Your task to perform on an android device: delete browsing data in the chrome app Image 0: 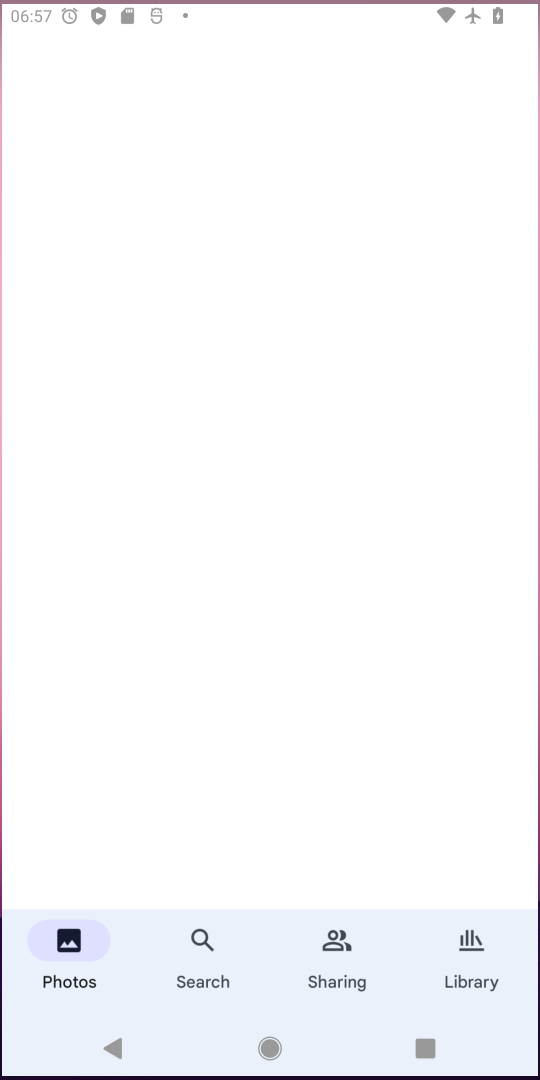
Step 0: press home button
Your task to perform on an android device: delete browsing data in the chrome app Image 1: 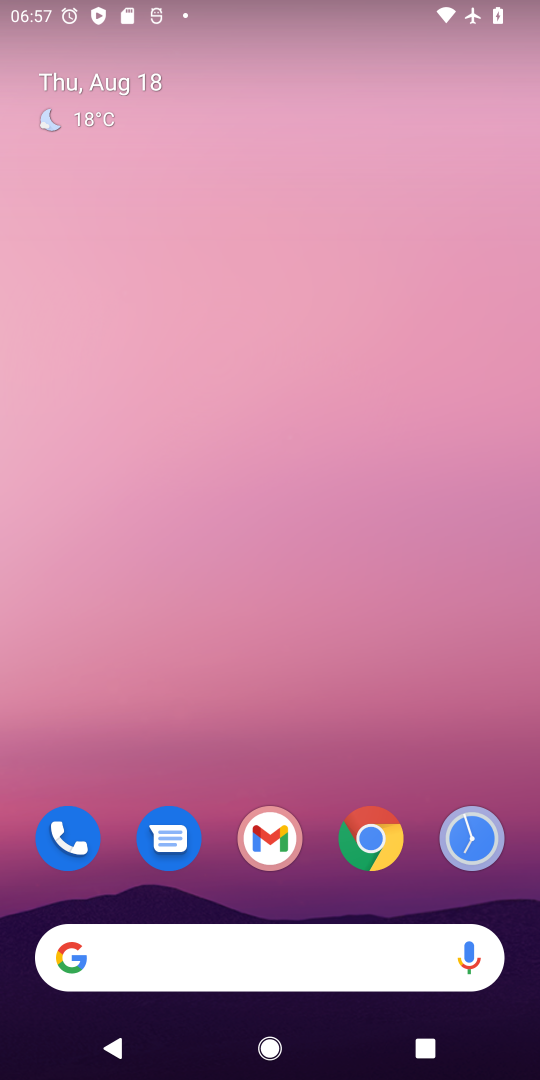
Step 1: click (371, 850)
Your task to perform on an android device: delete browsing data in the chrome app Image 2: 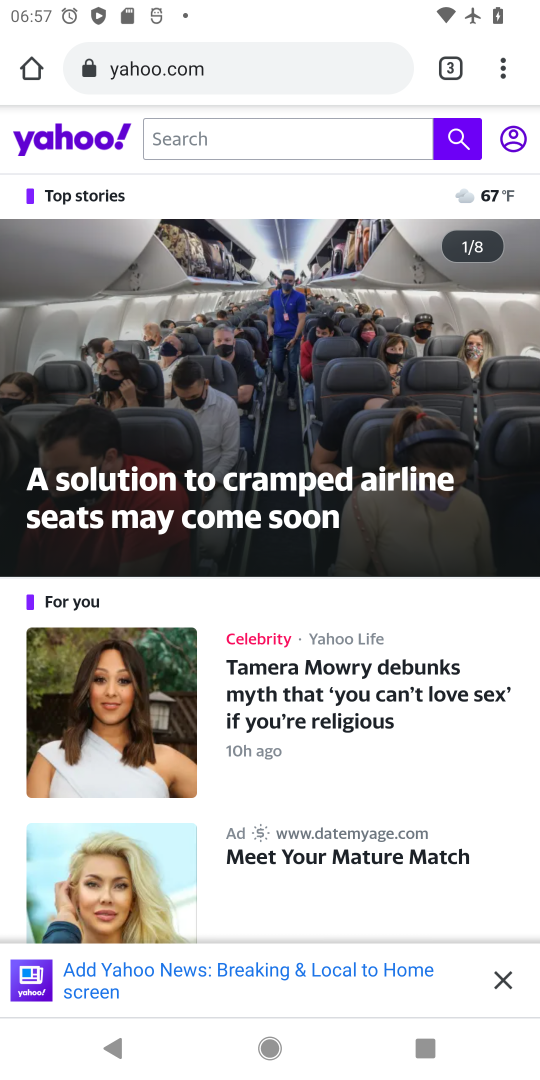
Step 2: drag from (506, 72) to (300, 930)
Your task to perform on an android device: delete browsing data in the chrome app Image 3: 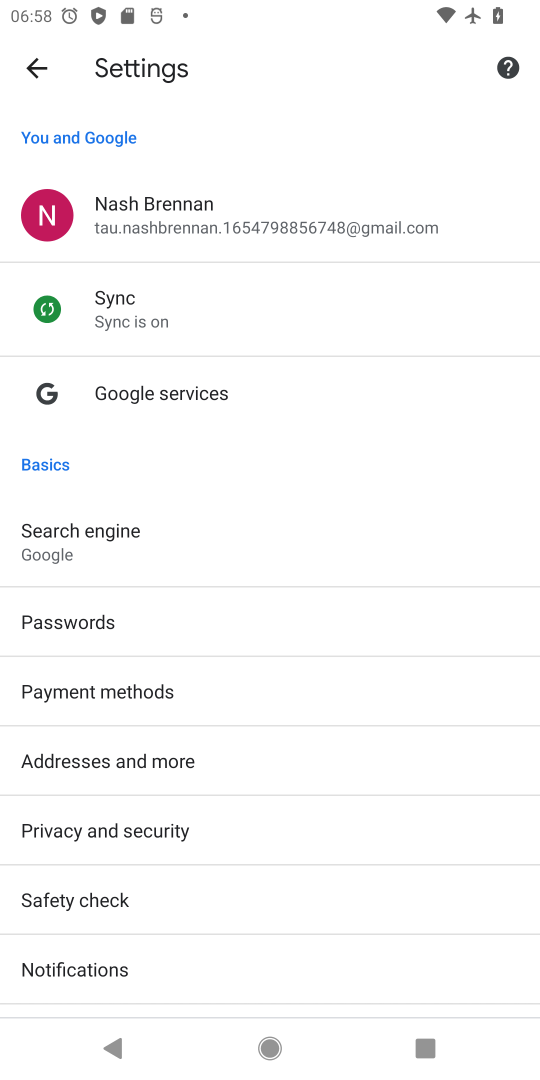
Step 3: click (174, 829)
Your task to perform on an android device: delete browsing data in the chrome app Image 4: 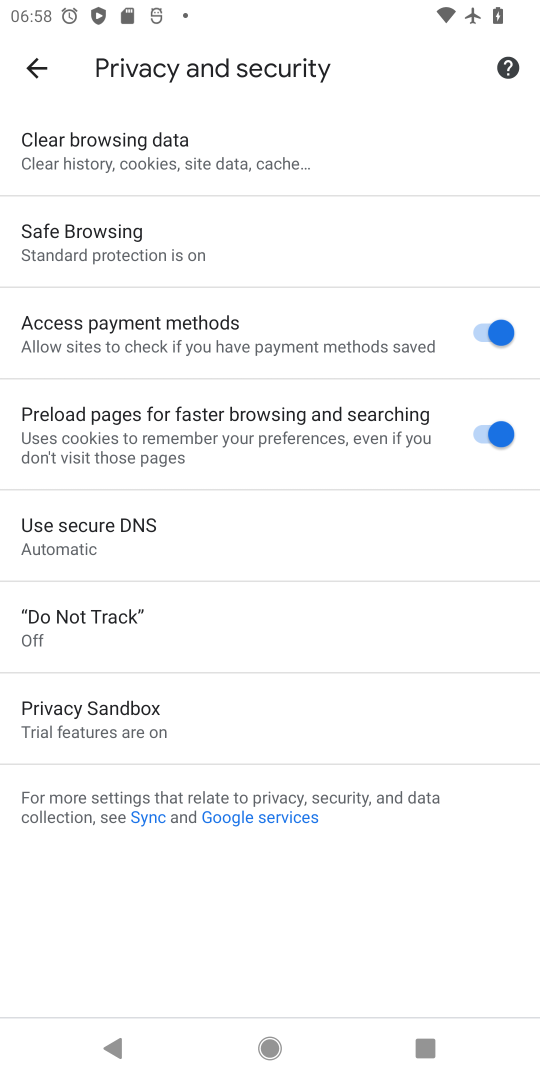
Step 4: click (95, 155)
Your task to perform on an android device: delete browsing data in the chrome app Image 5: 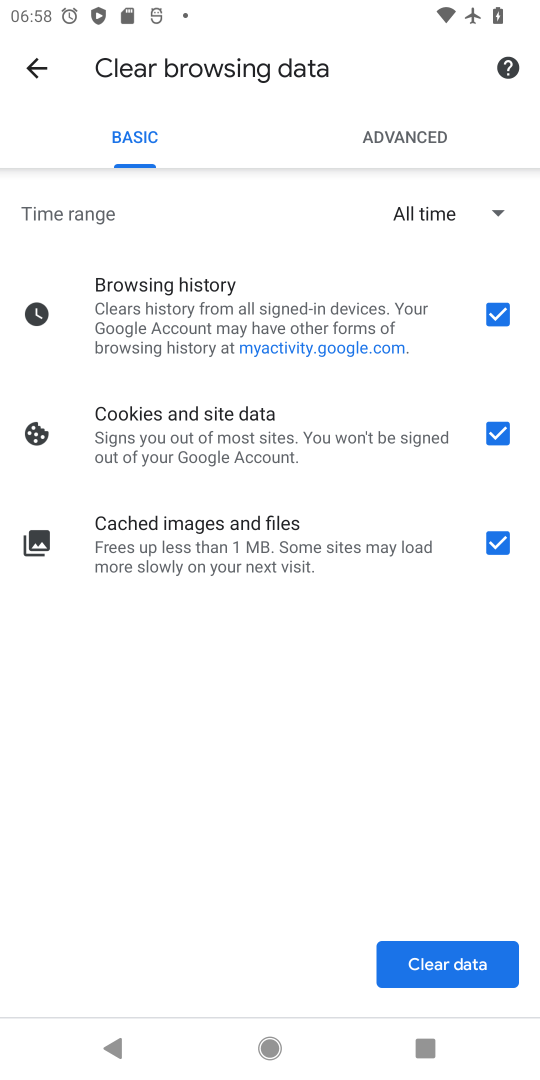
Step 5: click (450, 976)
Your task to perform on an android device: delete browsing data in the chrome app Image 6: 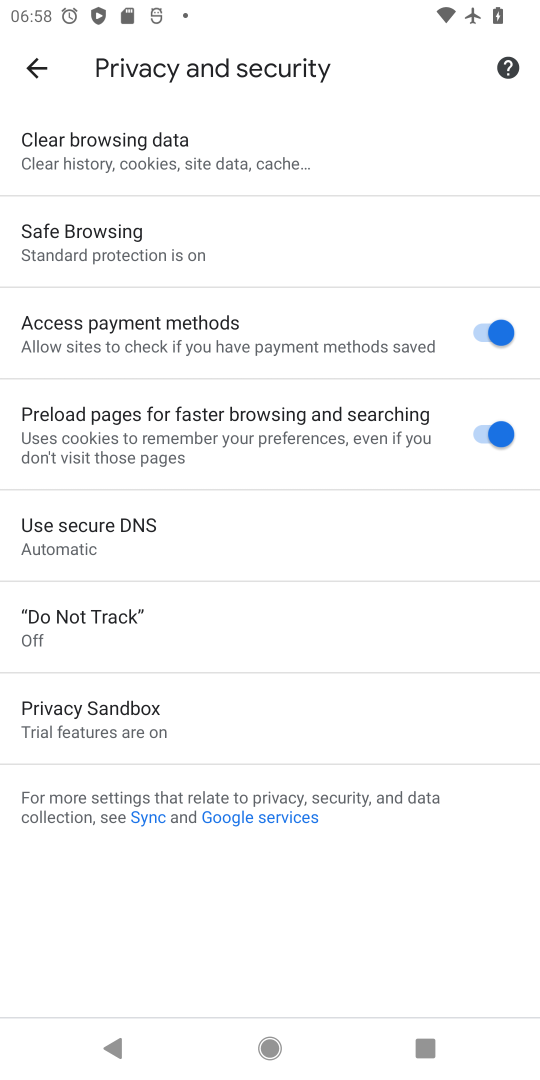
Step 6: task complete